Your task to perform on an android device: Search for pizza restaurants on Maps Image 0: 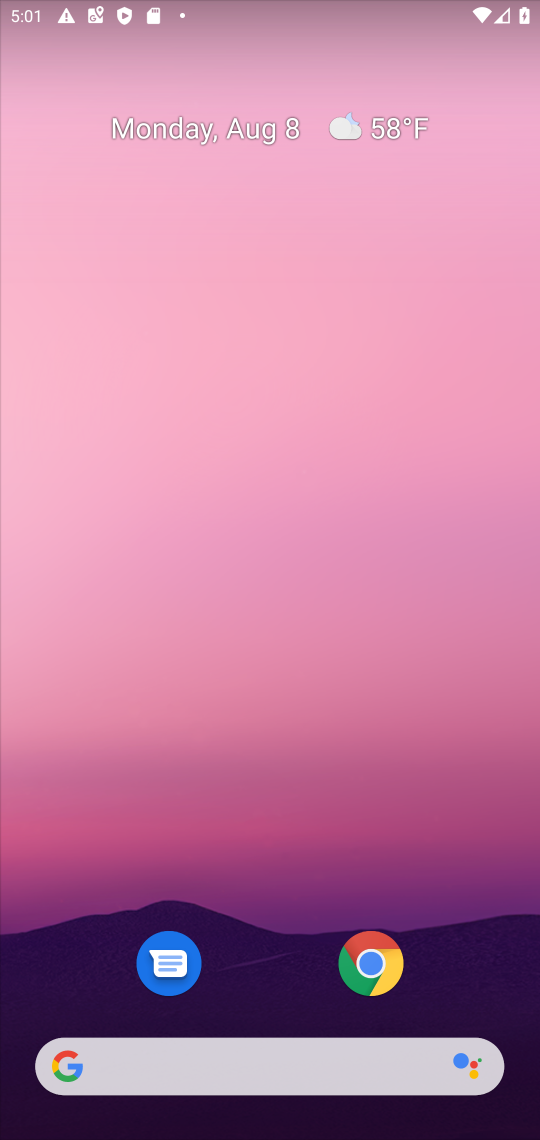
Step 0: drag from (265, 934) to (324, 53)
Your task to perform on an android device: Search for pizza restaurants on Maps Image 1: 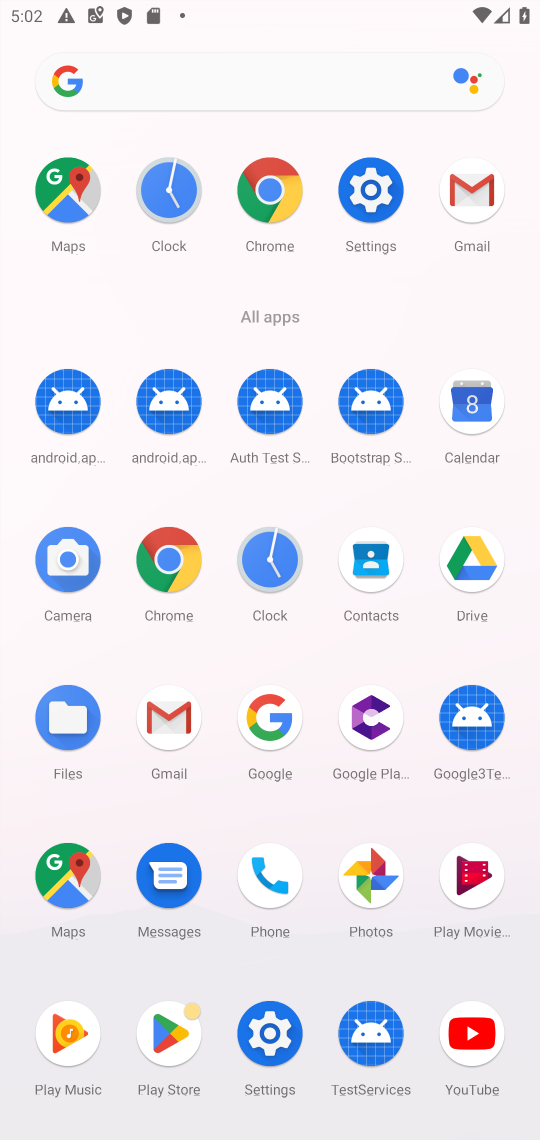
Step 1: click (74, 866)
Your task to perform on an android device: Search for pizza restaurants on Maps Image 2: 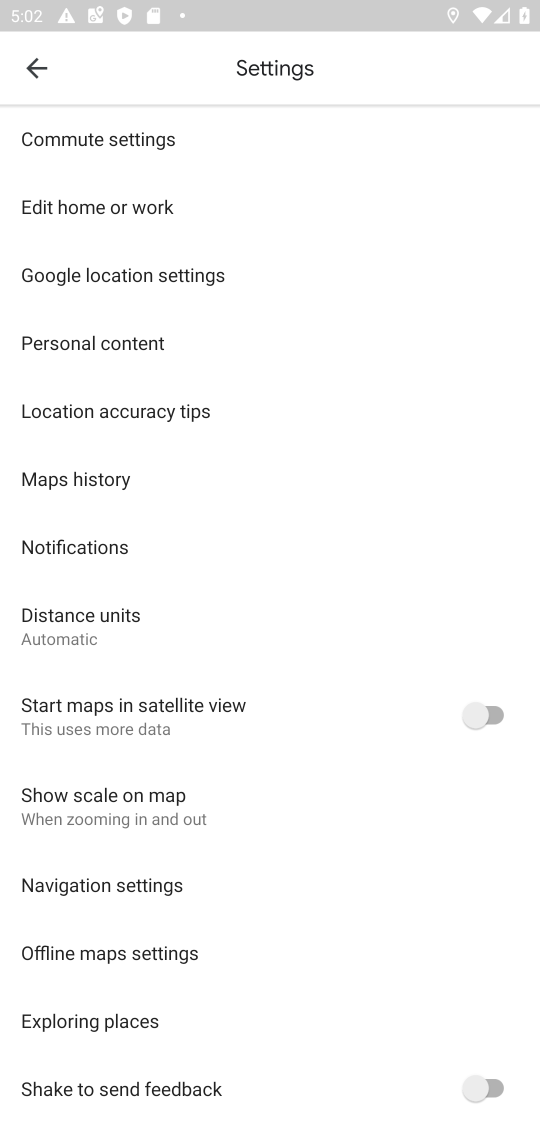
Step 2: click (41, 77)
Your task to perform on an android device: Search for pizza restaurants on Maps Image 3: 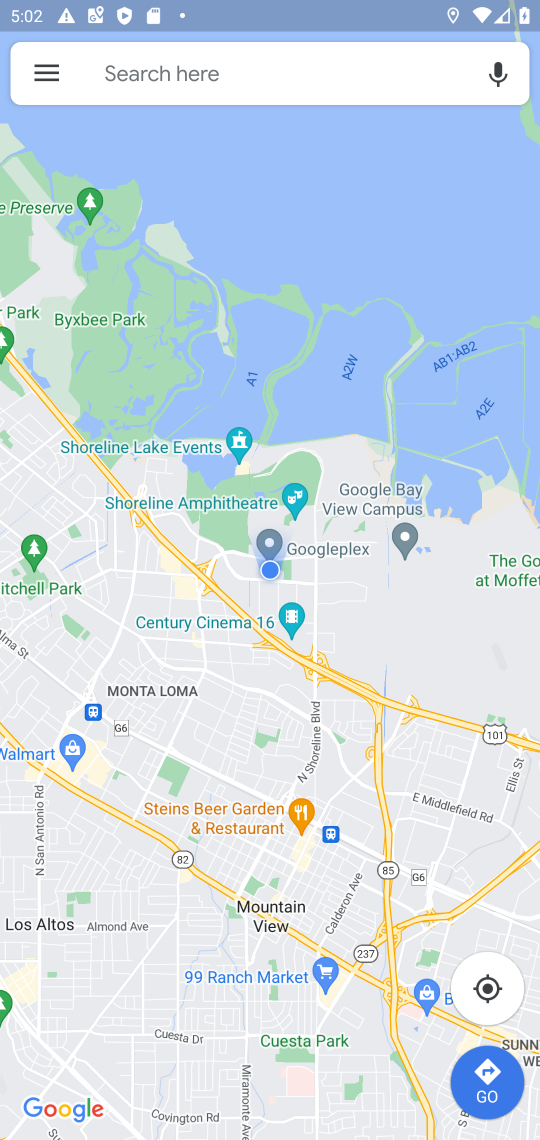
Step 3: click (157, 70)
Your task to perform on an android device: Search for pizza restaurants on Maps Image 4: 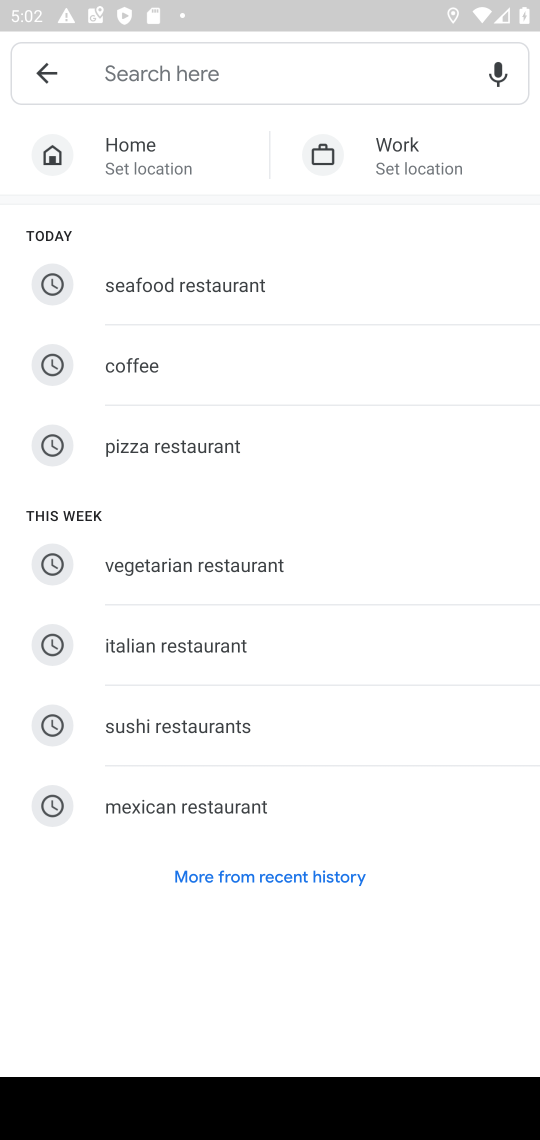
Step 4: type "pizza restaurants"
Your task to perform on an android device: Search for pizza restaurants on Maps Image 5: 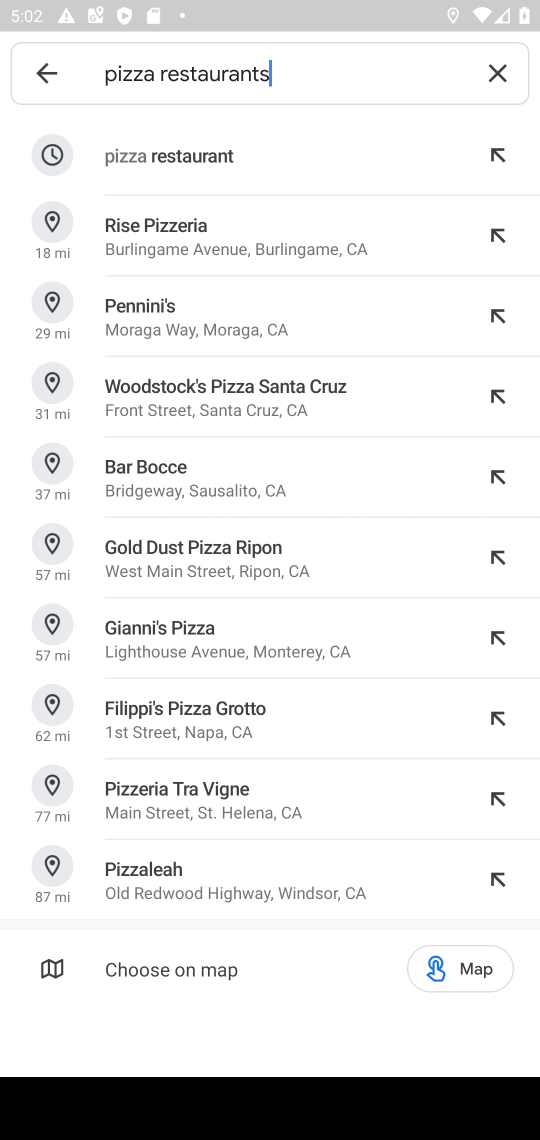
Step 5: click (206, 131)
Your task to perform on an android device: Search for pizza restaurants on Maps Image 6: 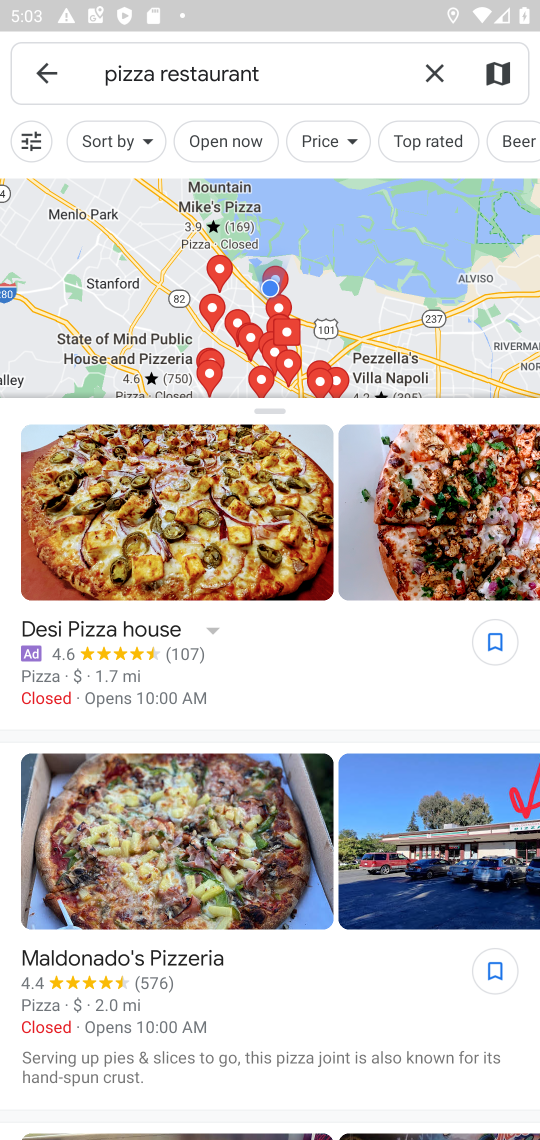
Step 6: task complete